Your task to perform on an android device: change text size in settings app Image 0: 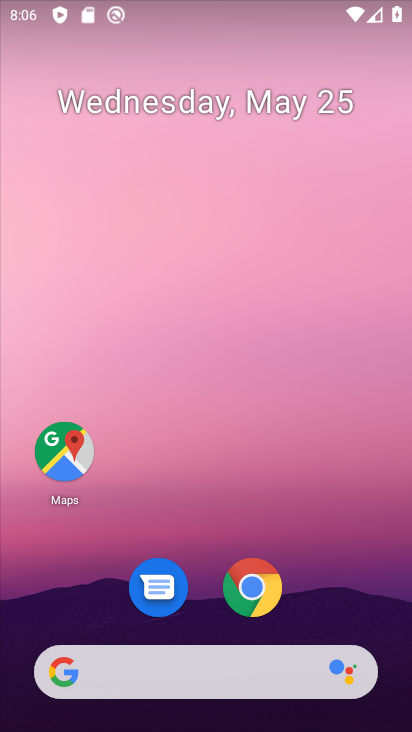
Step 0: drag from (312, 601) to (362, 110)
Your task to perform on an android device: change text size in settings app Image 1: 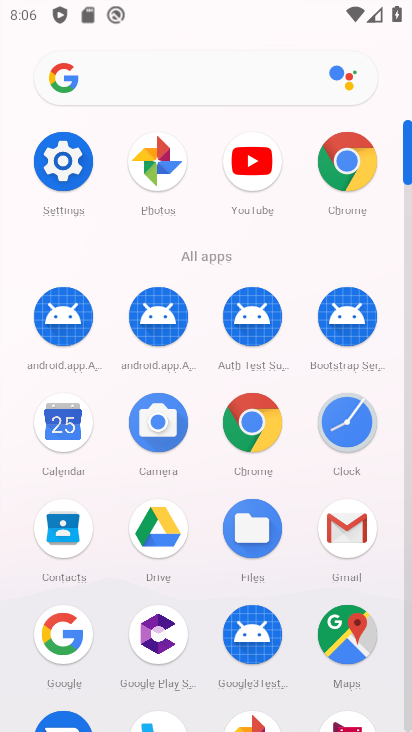
Step 1: click (52, 155)
Your task to perform on an android device: change text size in settings app Image 2: 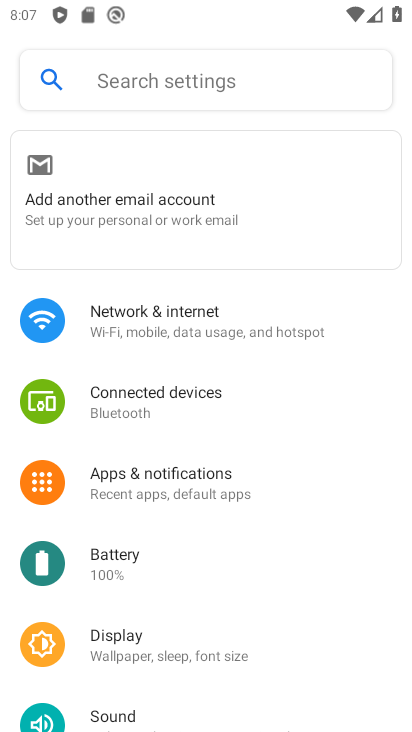
Step 2: drag from (283, 637) to (366, 196)
Your task to perform on an android device: change text size in settings app Image 3: 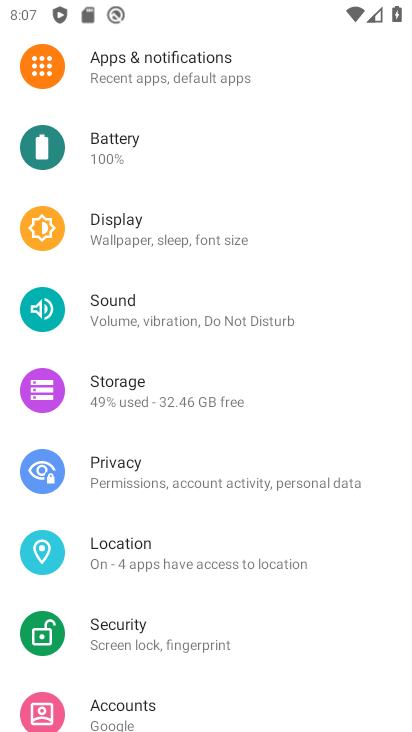
Step 3: drag from (301, 676) to (371, 235)
Your task to perform on an android device: change text size in settings app Image 4: 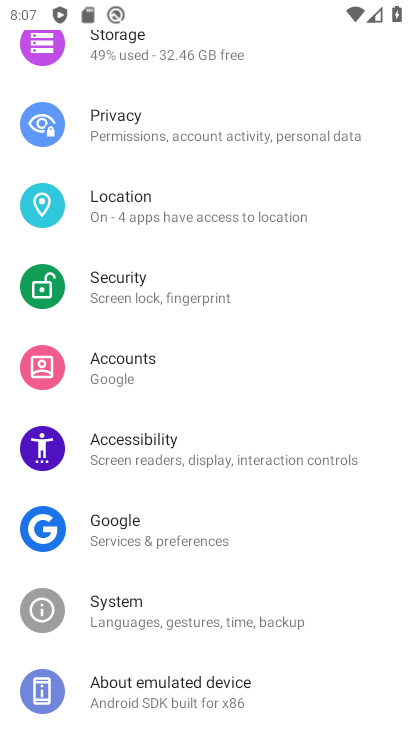
Step 4: click (100, 618)
Your task to perform on an android device: change text size in settings app Image 5: 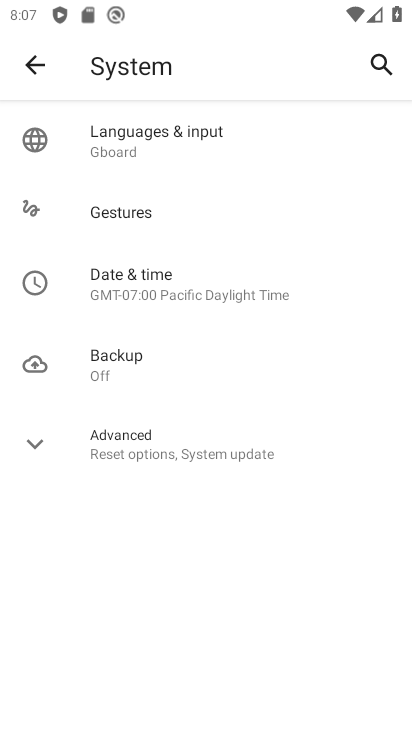
Step 5: click (131, 157)
Your task to perform on an android device: change text size in settings app Image 6: 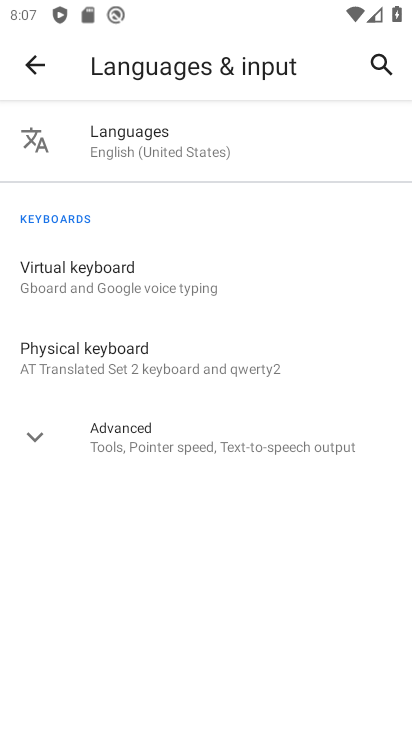
Step 6: click (89, 286)
Your task to perform on an android device: change text size in settings app Image 7: 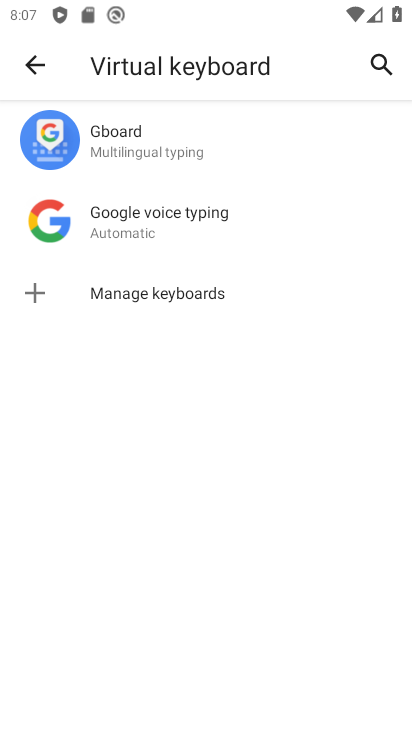
Step 7: click (93, 154)
Your task to perform on an android device: change text size in settings app Image 8: 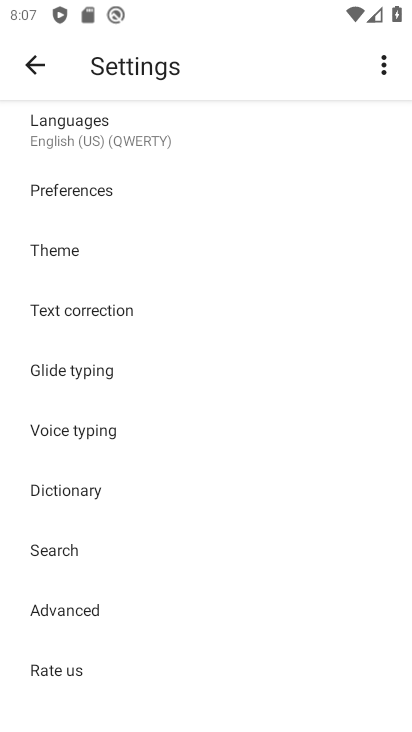
Step 8: click (58, 236)
Your task to perform on an android device: change text size in settings app Image 9: 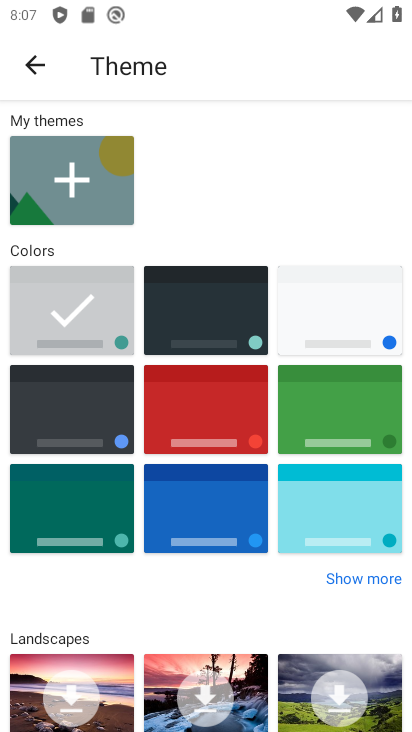
Step 9: click (234, 295)
Your task to perform on an android device: change text size in settings app Image 10: 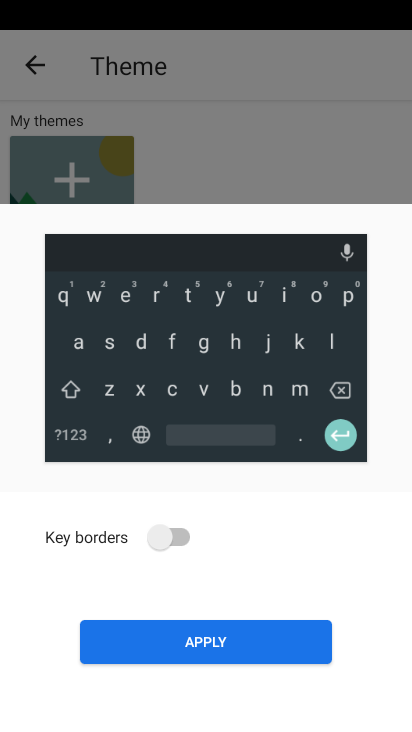
Step 10: click (163, 542)
Your task to perform on an android device: change text size in settings app Image 11: 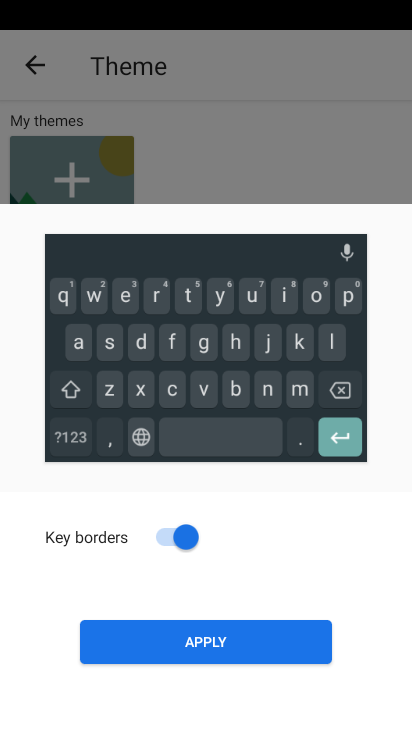
Step 11: click (158, 625)
Your task to perform on an android device: change text size in settings app Image 12: 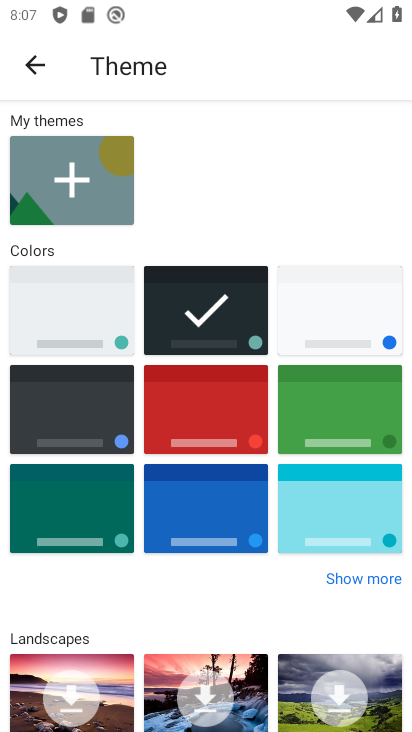
Step 12: task complete